Your task to perform on an android device: toggle notification dots Image 0: 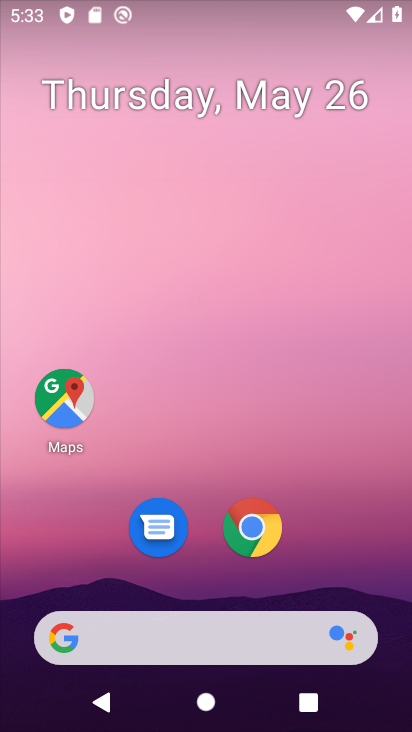
Step 0: drag from (148, 601) to (272, 156)
Your task to perform on an android device: toggle notification dots Image 1: 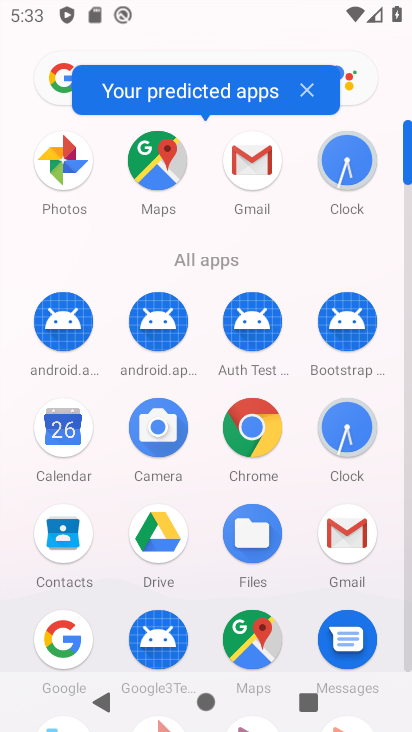
Step 1: drag from (201, 546) to (210, 145)
Your task to perform on an android device: toggle notification dots Image 2: 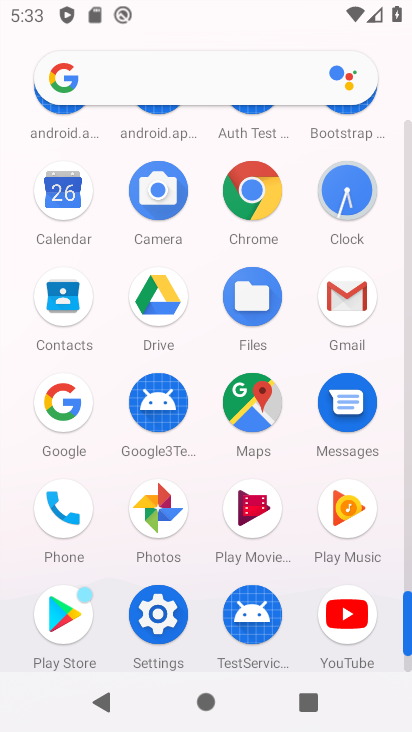
Step 2: click (152, 620)
Your task to perform on an android device: toggle notification dots Image 3: 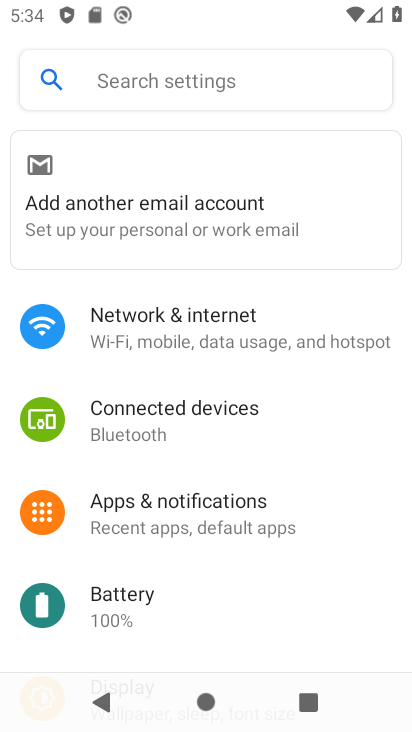
Step 3: click (136, 503)
Your task to perform on an android device: toggle notification dots Image 4: 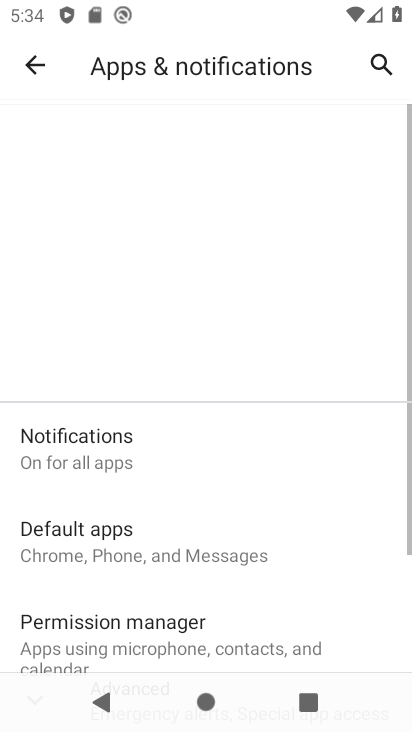
Step 4: drag from (151, 626) to (226, 55)
Your task to perform on an android device: toggle notification dots Image 5: 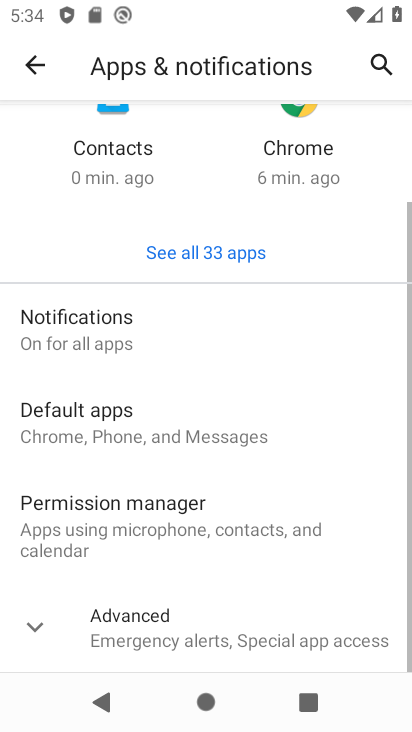
Step 5: click (106, 348)
Your task to perform on an android device: toggle notification dots Image 6: 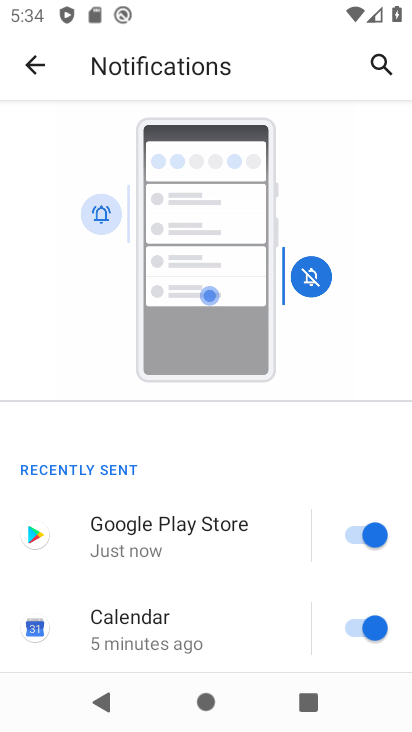
Step 6: drag from (174, 643) to (260, 207)
Your task to perform on an android device: toggle notification dots Image 7: 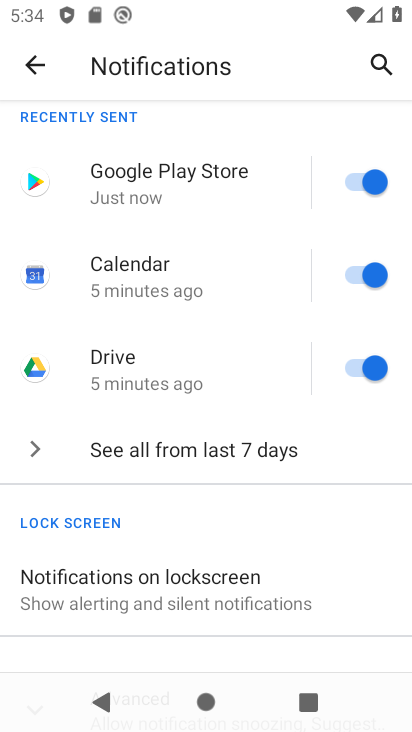
Step 7: drag from (201, 605) to (259, 211)
Your task to perform on an android device: toggle notification dots Image 8: 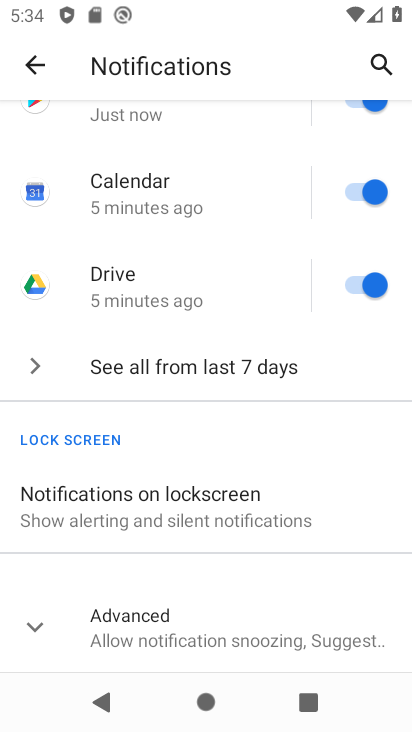
Step 8: click (183, 616)
Your task to perform on an android device: toggle notification dots Image 9: 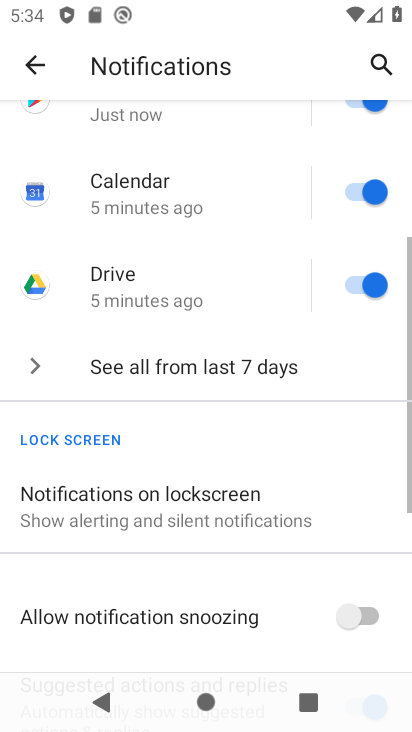
Step 9: drag from (169, 658) to (261, 116)
Your task to perform on an android device: toggle notification dots Image 10: 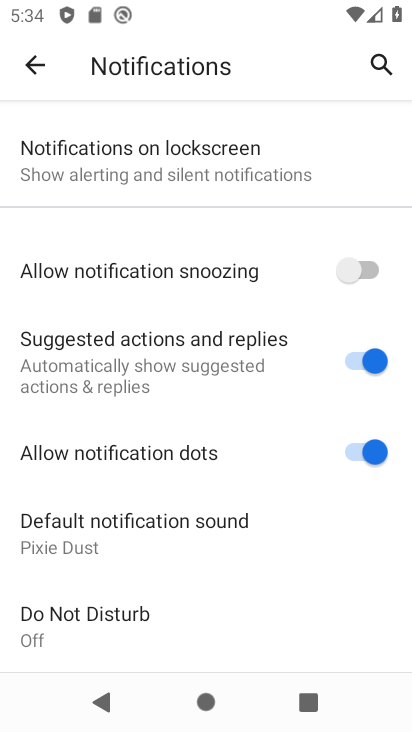
Step 10: click (348, 455)
Your task to perform on an android device: toggle notification dots Image 11: 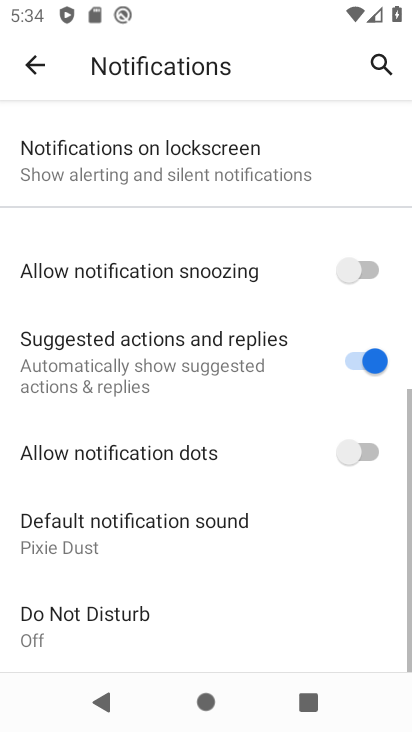
Step 11: task complete